Your task to perform on an android device: Open privacy settings Image 0: 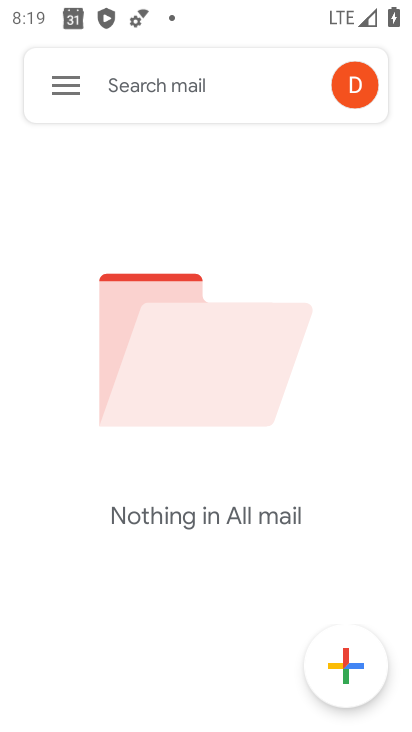
Step 0: press back button
Your task to perform on an android device: Open privacy settings Image 1: 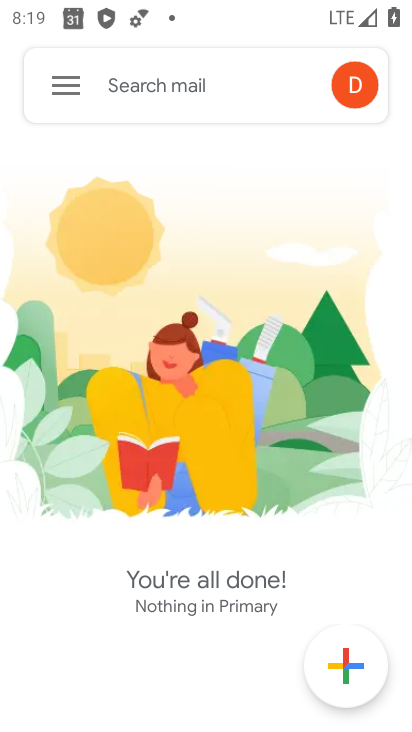
Step 1: press back button
Your task to perform on an android device: Open privacy settings Image 2: 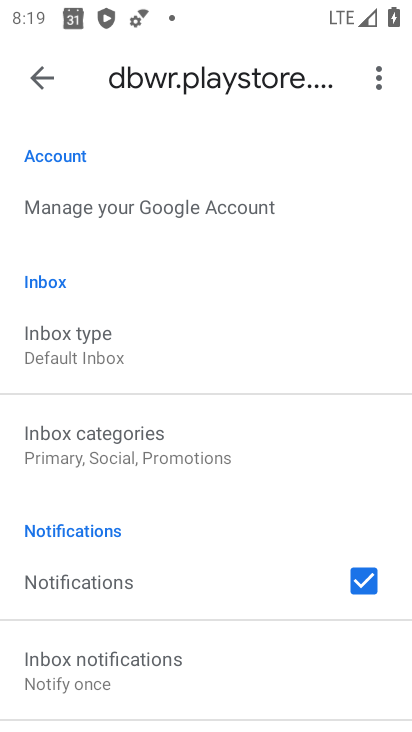
Step 2: press home button
Your task to perform on an android device: Open privacy settings Image 3: 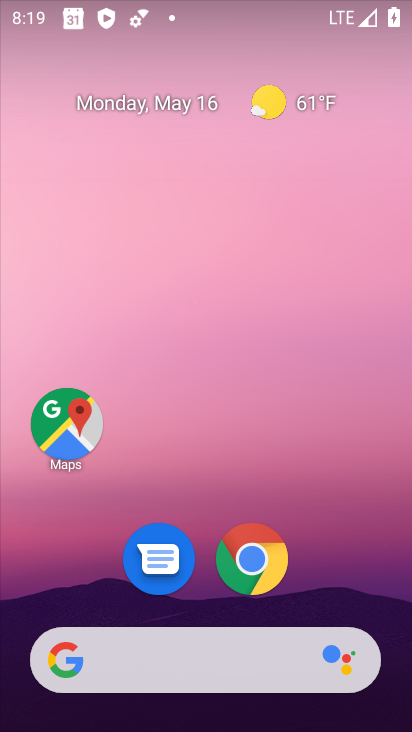
Step 3: drag from (181, 512) to (276, 7)
Your task to perform on an android device: Open privacy settings Image 4: 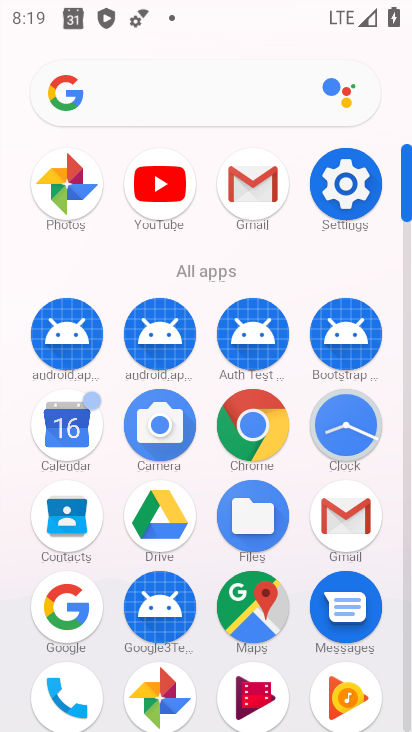
Step 4: click (356, 197)
Your task to perform on an android device: Open privacy settings Image 5: 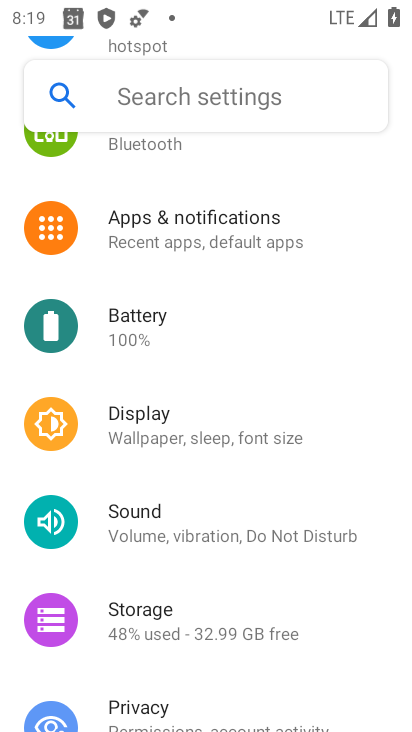
Step 5: drag from (164, 664) to (190, 152)
Your task to perform on an android device: Open privacy settings Image 6: 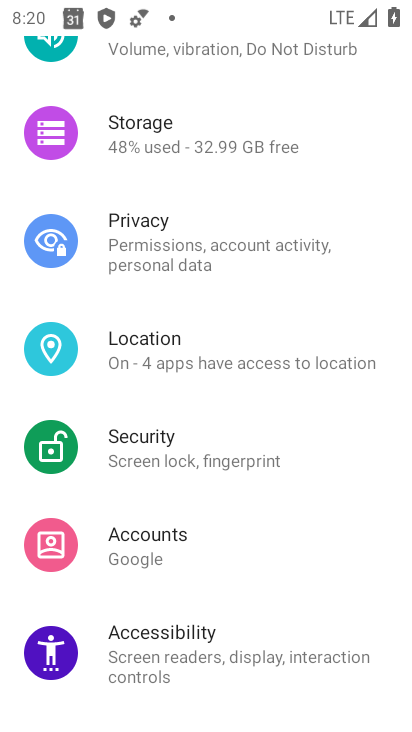
Step 6: click (170, 256)
Your task to perform on an android device: Open privacy settings Image 7: 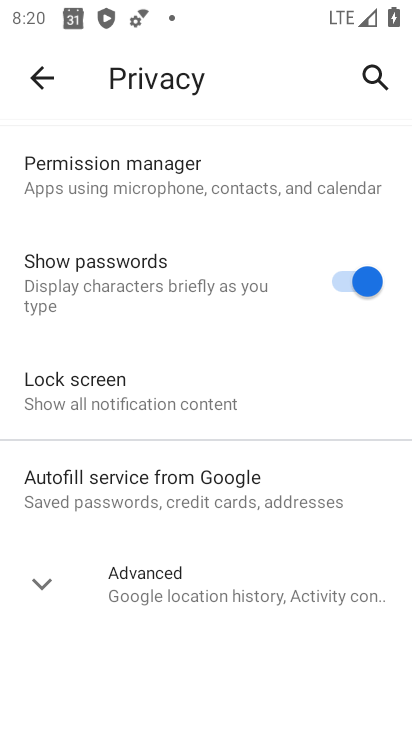
Step 7: task complete